Your task to perform on an android device: What's the weather? Image 0: 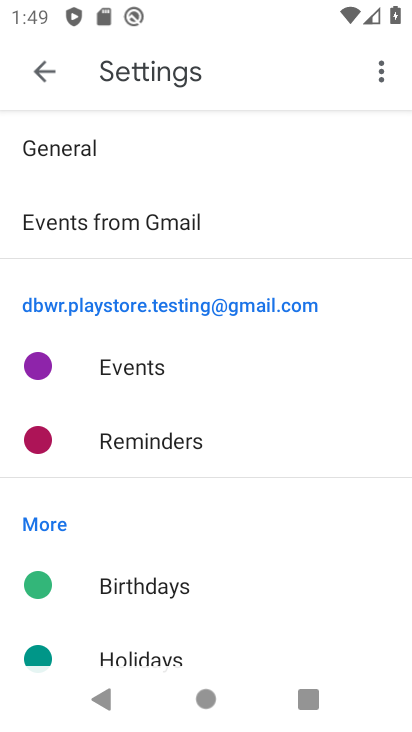
Step 0: press home button
Your task to perform on an android device: What's the weather? Image 1: 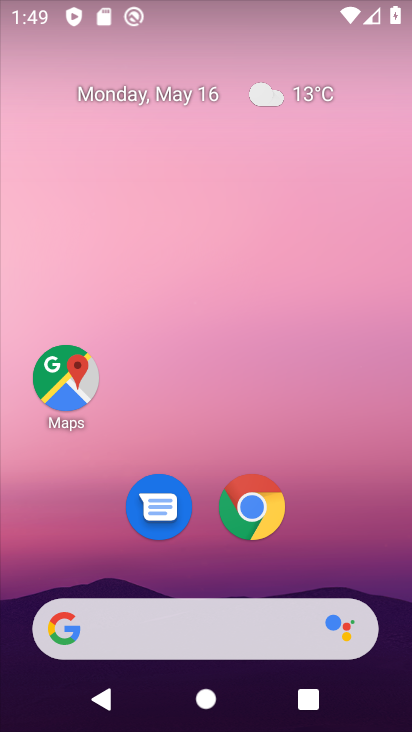
Step 1: click (325, 105)
Your task to perform on an android device: What's the weather? Image 2: 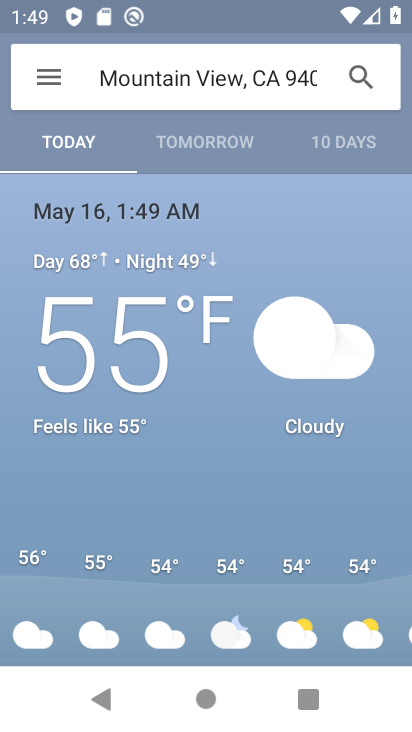
Step 2: task complete